Your task to perform on an android device: turn on location history Image 0: 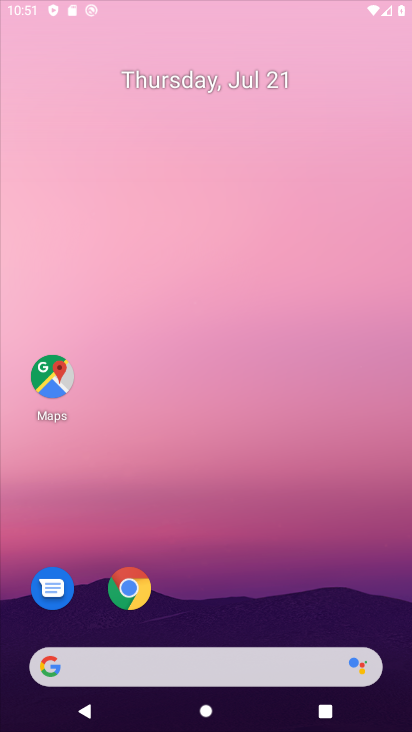
Step 0: press home button
Your task to perform on an android device: turn on location history Image 1: 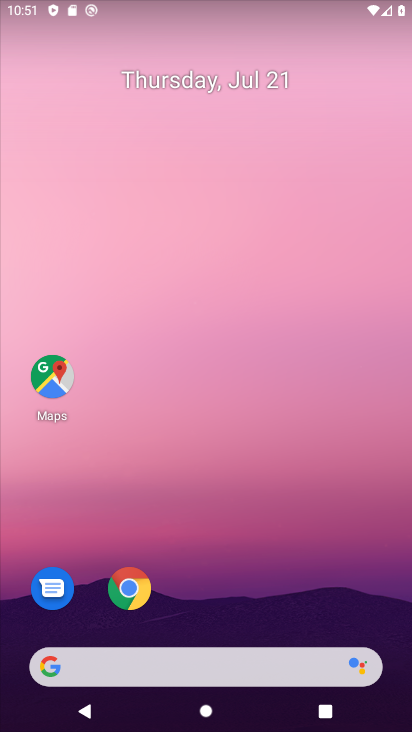
Step 1: drag from (216, 620) to (239, 110)
Your task to perform on an android device: turn on location history Image 2: 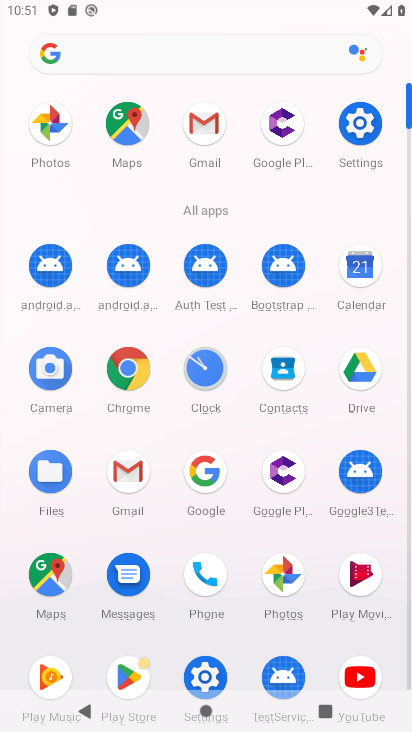
Step 2: click (356, 125)
Your task to perform on an android device: turn on location history Image 3: 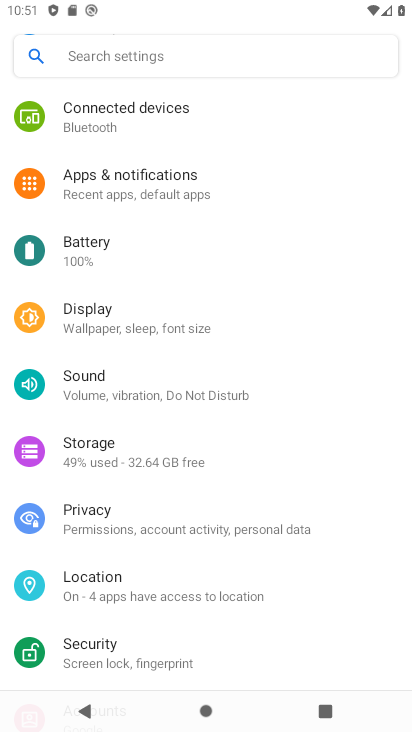
Step 3: click (135, 577)
Your task to perform on an android device: turn on location history Image 4: 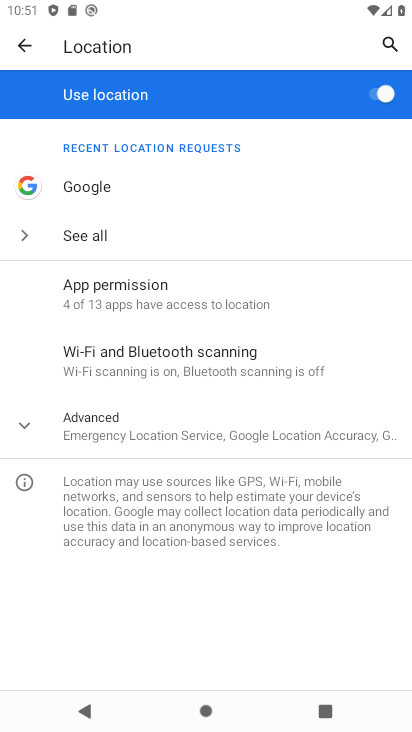
Step 4: click (16, 421)
Your task to perform on an android device: turn on location history Image 5: 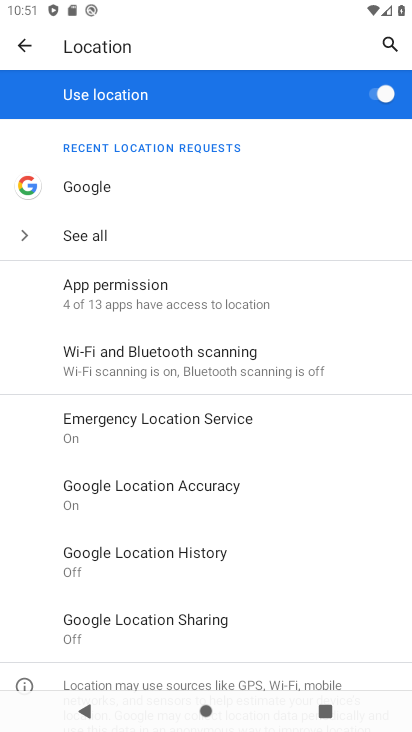
Step 5: click (164, 560)
Your task to perform on an android device: turn on location history Image 6: 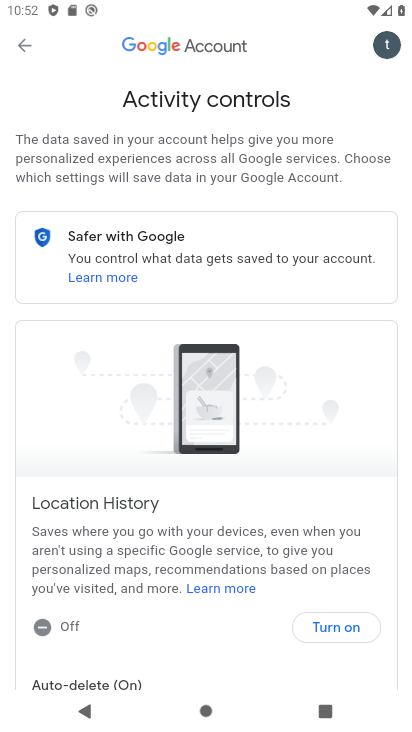
Step 6: click (326, 623)
Your task to perform on an android device: turn on location history Image 7: 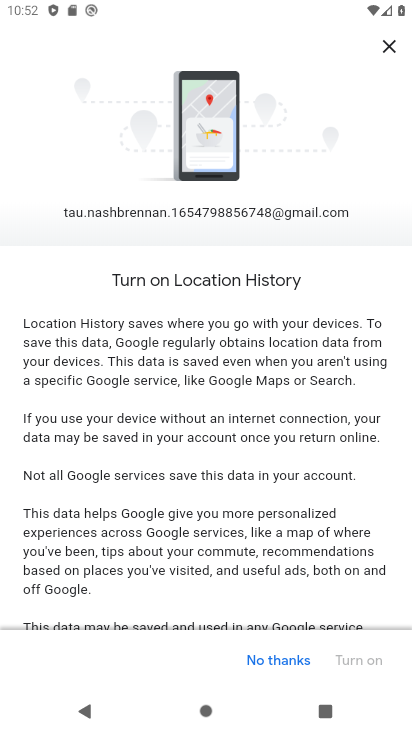
Step 7: drag from (248, 582) to (271, 178)
Your task to perform on an android device: turn on location history Image 8: 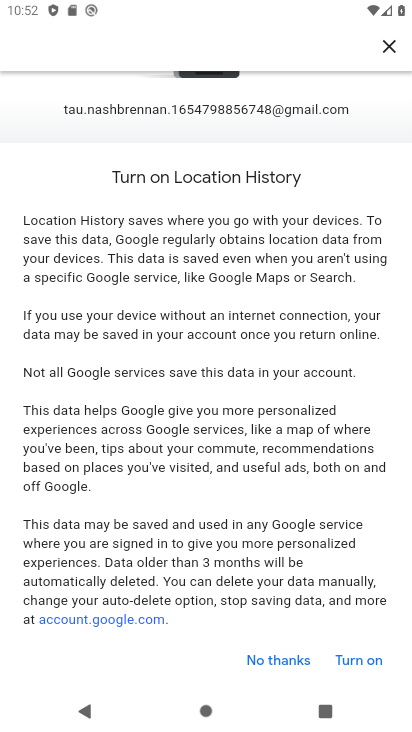
Step 8: click (365, 653)
Your task to perform on an android device: turn on location history Image 9: 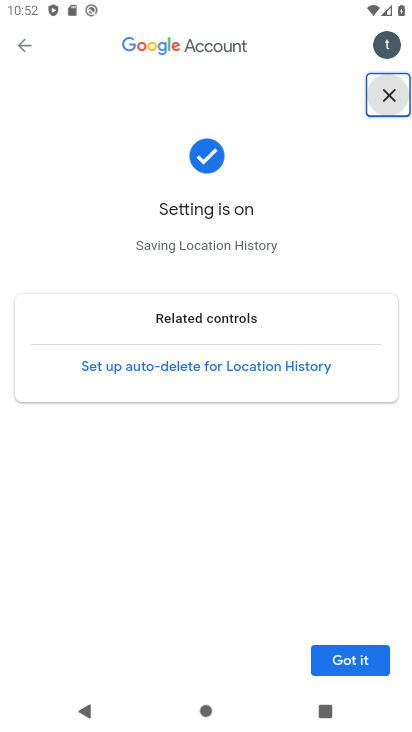
Step 9: click (353, 659)
Your task to perform on an android device: turn on location history Image 10: 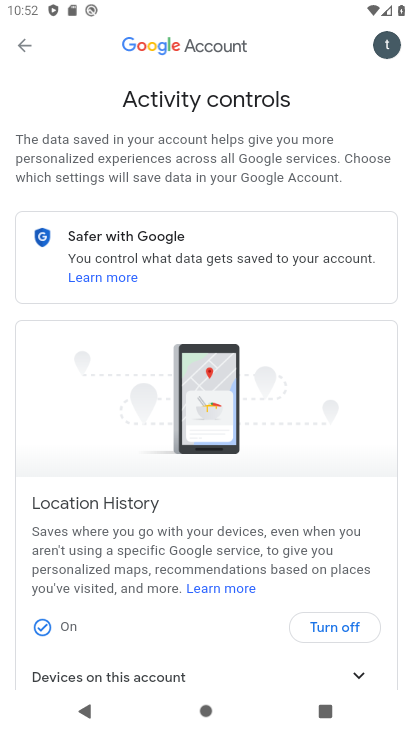
Step 10: task complete